Your task to perform on an android device: Open internet settings Image 0: 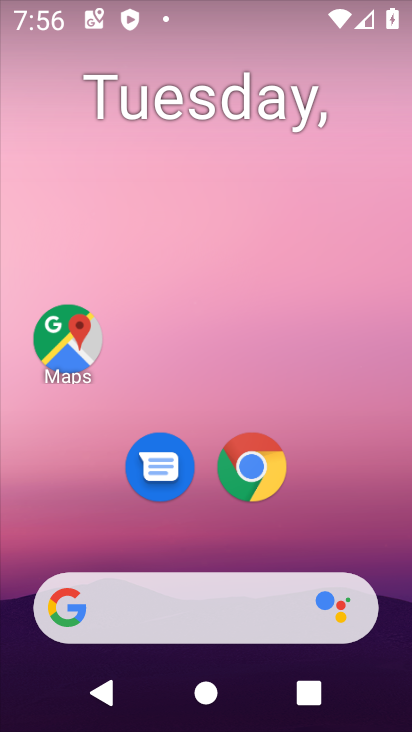
Step 0: drag from (350, 547) to (307, 26)
Your task to perform on an android device: Open internet settings Image 1: 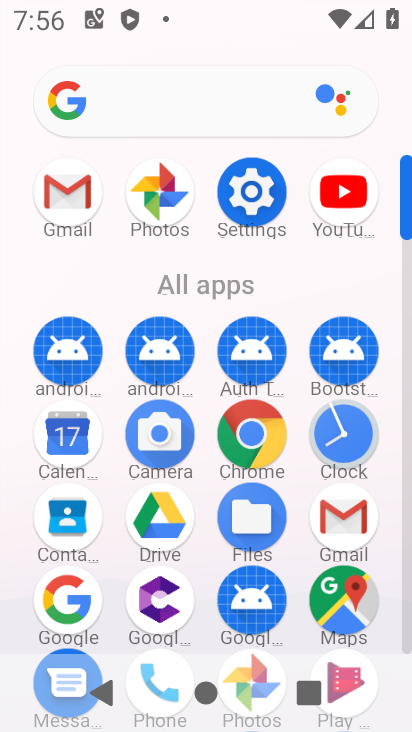
Step 1: click (406, 648)
Your task to perform on an android device: Open internet settings Image 2: 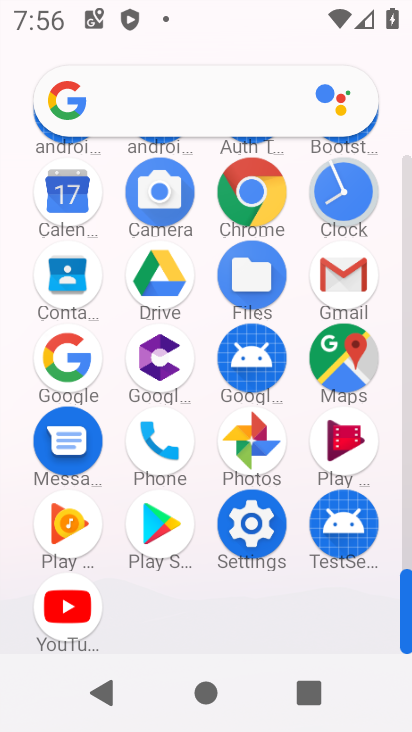
Step 2: click (267, 508)
Your task to perform on an android device: Open internet settings Image 3: 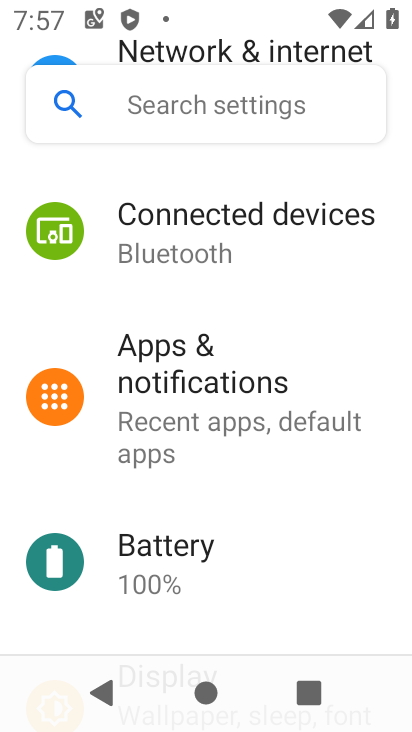
Step 3: drag from (286, 305) to (302, 703)
Your task to perform on an android device: Open internet settings Image 4: 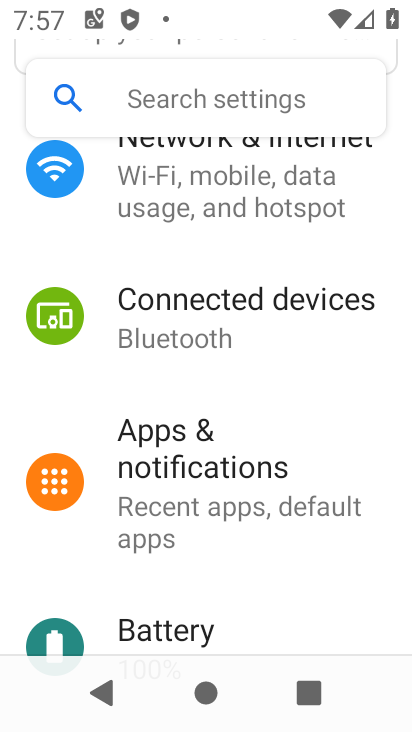
Step 4: click (269, 195)
Your task to perform on an android device: Open internet settings Image 5: 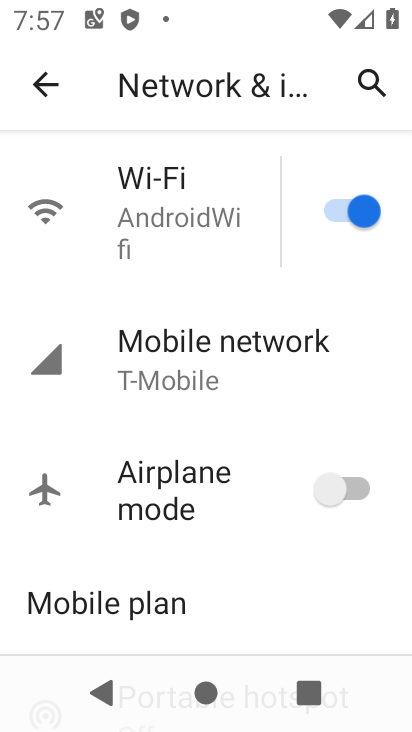
Step 5: task complete